Your task to perform on an android device: open a new tab in the chrome app Image 0: 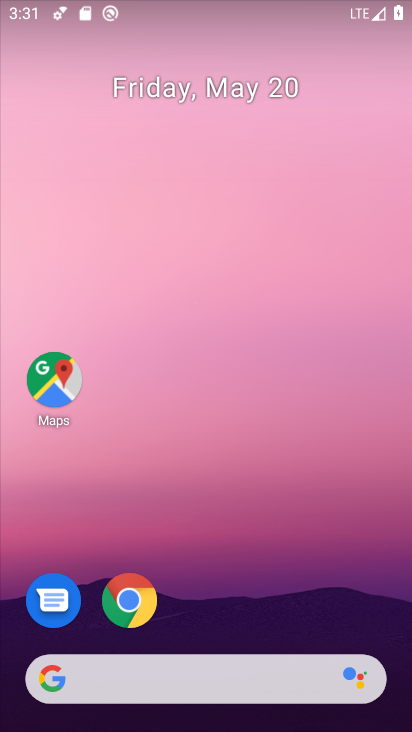
Step 0: drag from (381, 614) to (368, 292)
Your task to perform on an android device: open a new tab in the chrome app Image 1: 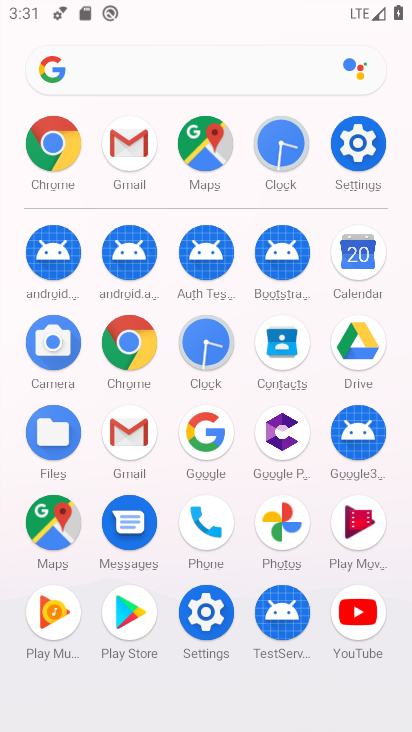
Step 1: click (130, 365)
Your task to perform on an android device: open a new tab in the chrome app Image 2: 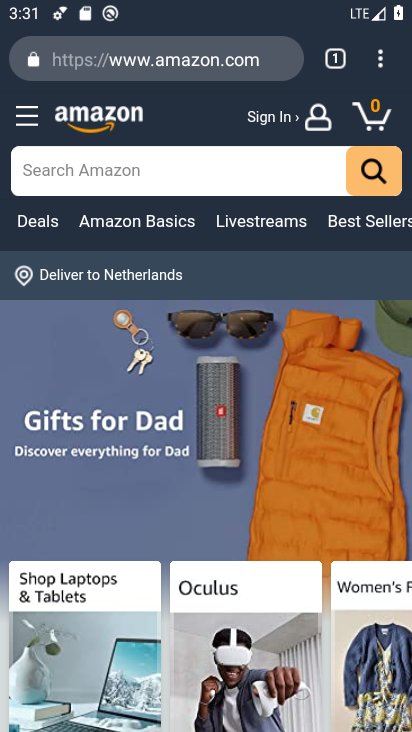
Step 2: click (383, 71)
Your task to perform on an android device: open a new tab in the chrome app Image 3: 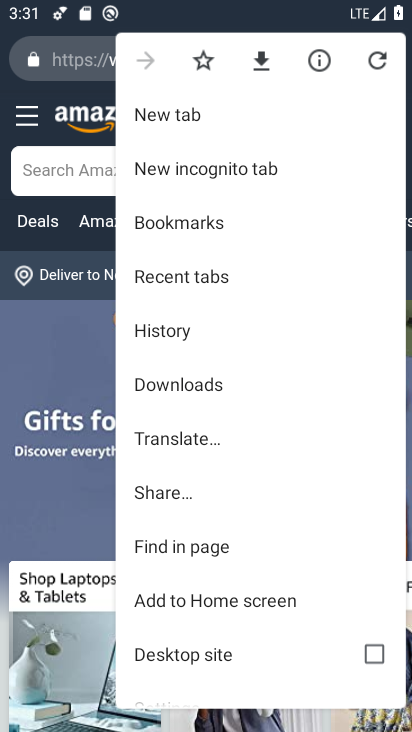
Step 3: drag from (302, 484) to (294, 366)
Your task to perform on an android device: open a new tab in the chrome app Image 4: 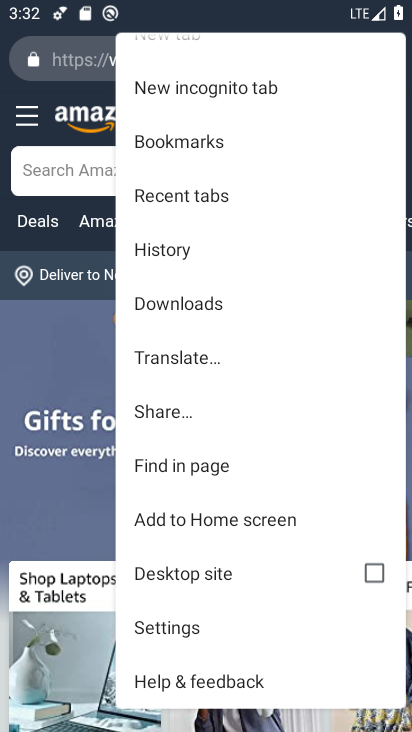
Step 4: drag from (315, 625) to (324, 491)
Your task to perform on an android device: open a new tab in the chrome app Image 5: 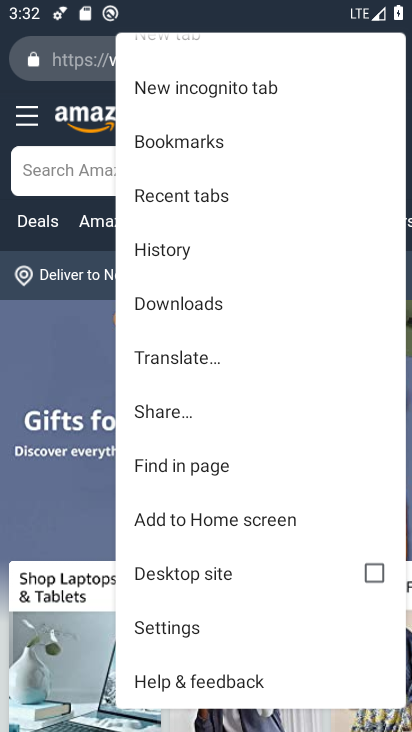
Step 5: drag from (330, 312) to (319, 460)
Your task to perform on an android device: open a new tab in the chrome app Image 6: 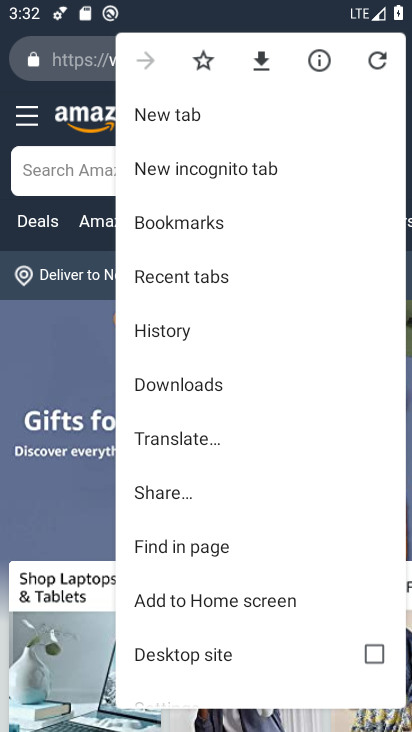
Step 6: drag from (315, 292) to (309, 406)
Your task to perform on an android device: open a new tab in the chrome app Image 7: 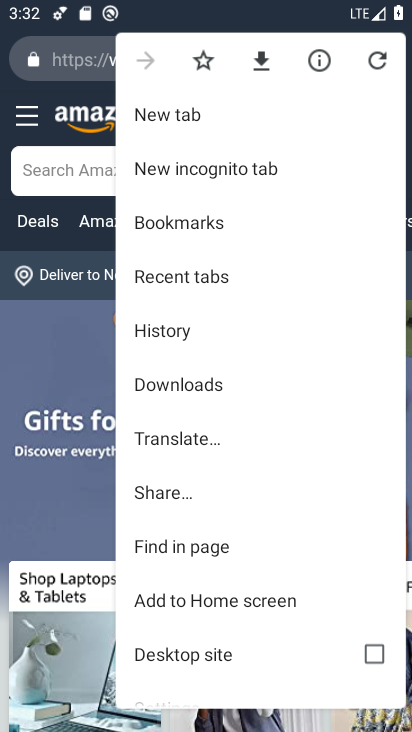
Step 7: click (218, 119)
Your task to perform on an android device: open a new tab in the chrome app Image 8: 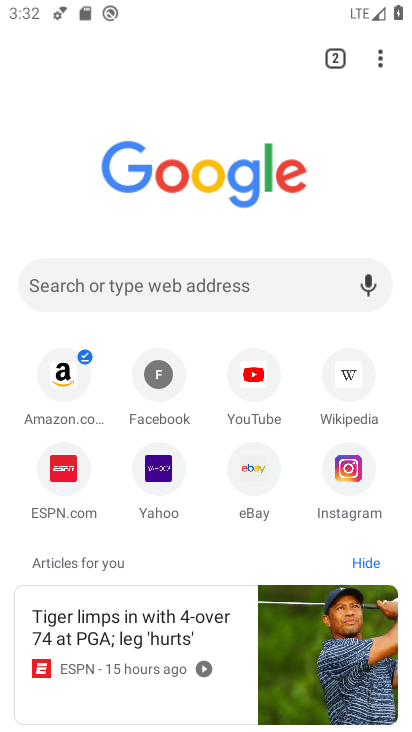
Step 8: task complete